Your task to perform on an android device: Show me recent news Image 0: 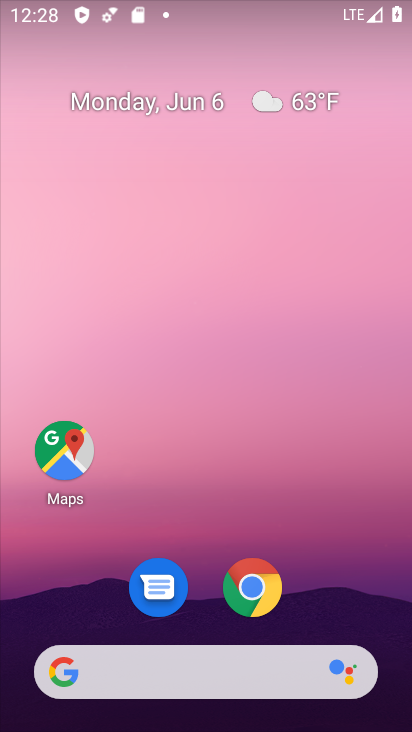
Step 0: click (276, 665)
Your task to perform on an android device: Show me recent news Image 1: 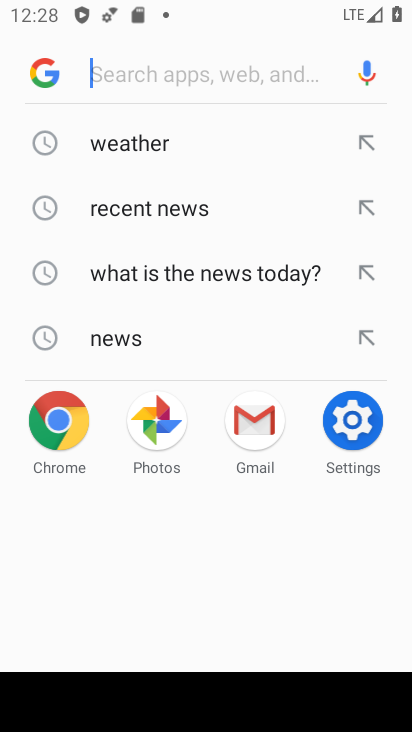
Step 1: click (214, 207)
Your task to perform on an android device: Show me recent news Image 2: 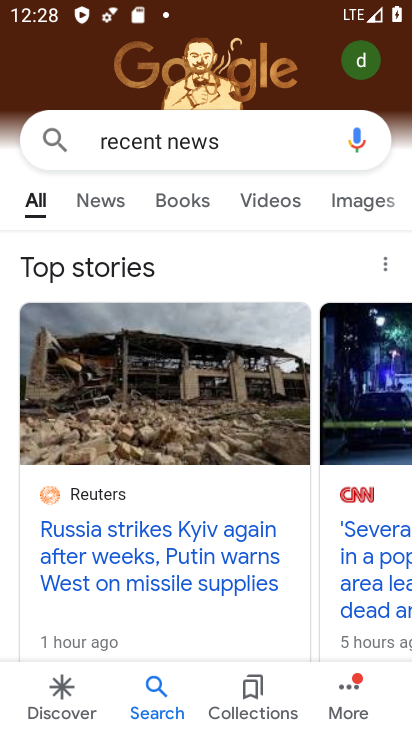
Step 2: task complete